Your task to perform on an android device: turn off notifications in google photos Image 0: 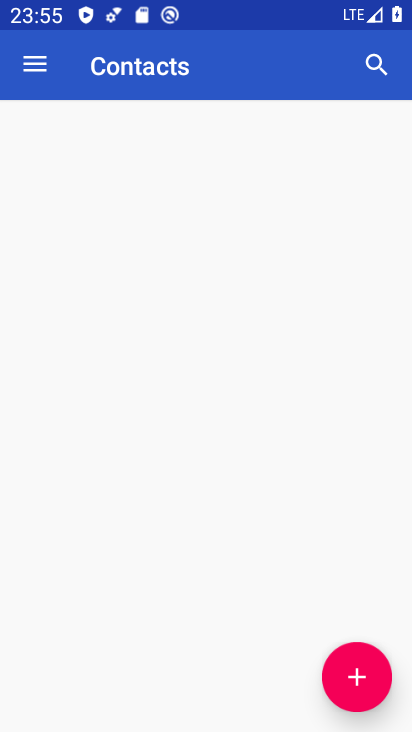
Step 0: press home button
Your task to perform on an android device: turn off notifications in google photos Image 1: 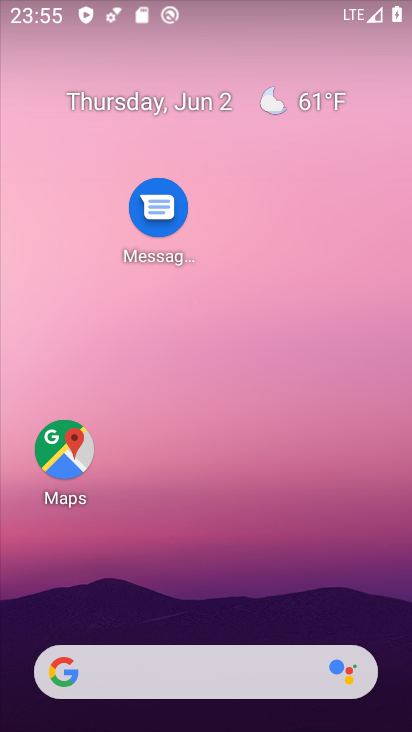
Step 1: drag from (151, 614) to (344, 80)
Your task to perform on an android device: turn off notifications in google photos Image 2: 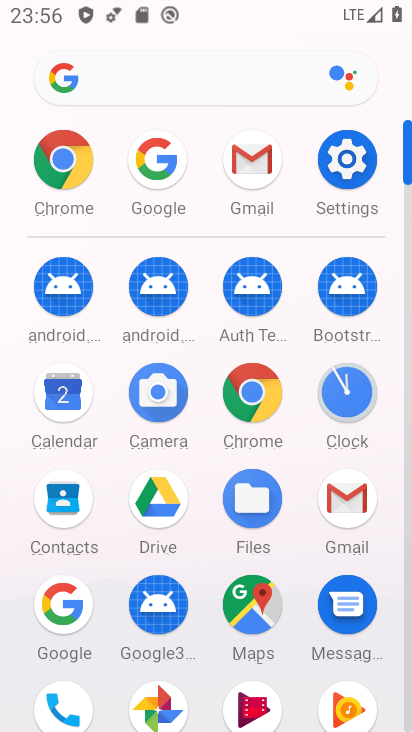
Step 2: click (147, 698)
Your task to perform on an android device: turn off notifications in google photos Image 3: 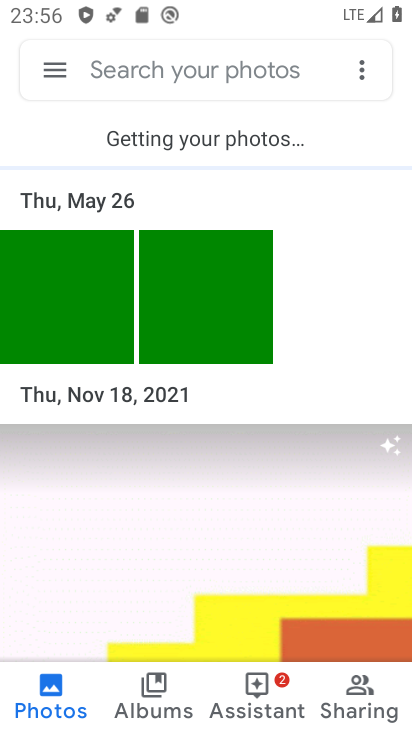
Step 3: click (61, 69)
Your task to perform on an android device: turn off notifications in google photos Image 4: 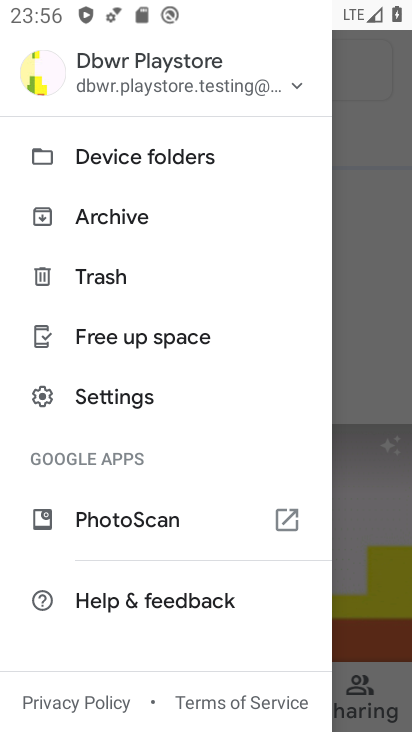
Step 4: click (112, 397)
Your task to perform on an android device: turn off notifications in google photos Image 5: 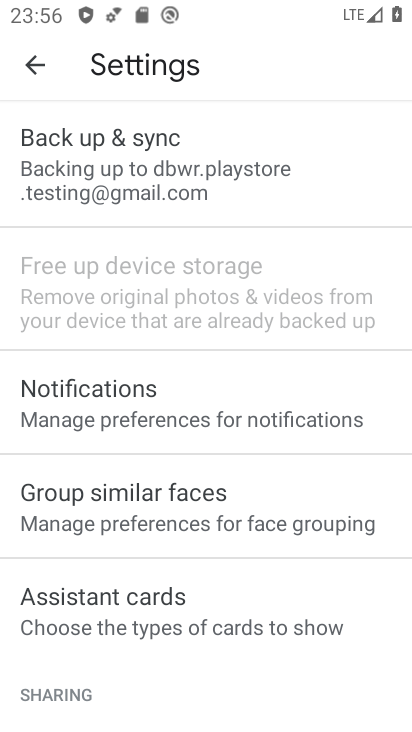
Step 5: click (169, 435)
Your task to perform on an android device: turn off notifications in google photos Image 6: 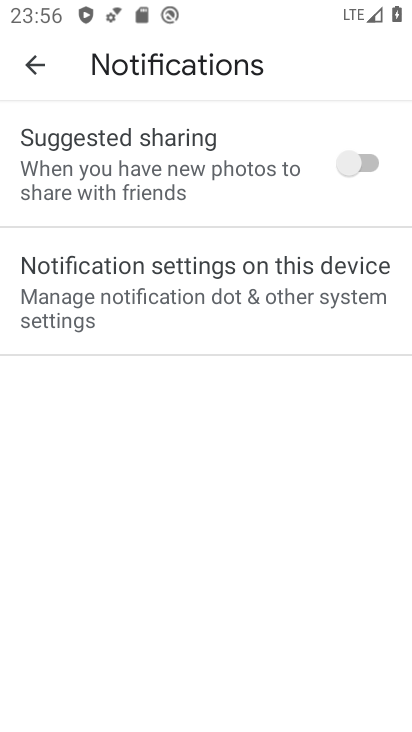
Step 6: click (341, 267)
Your task to perform on an android device: turn off notifications in google photos Image 7: 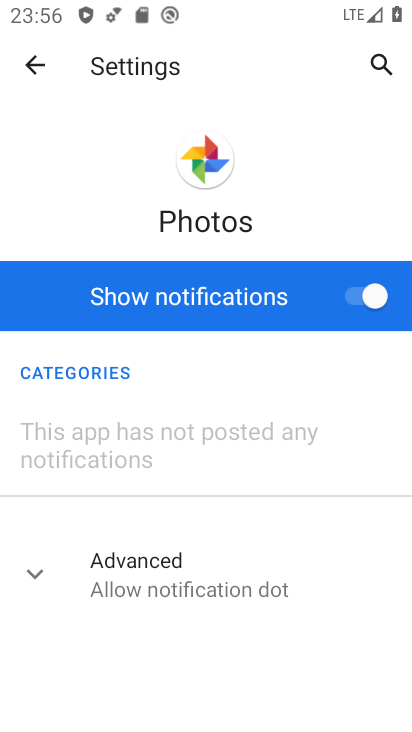
Step 7: click (370, 303)
Your task to perform on an android device: turn off notifications in google photos Image 8: 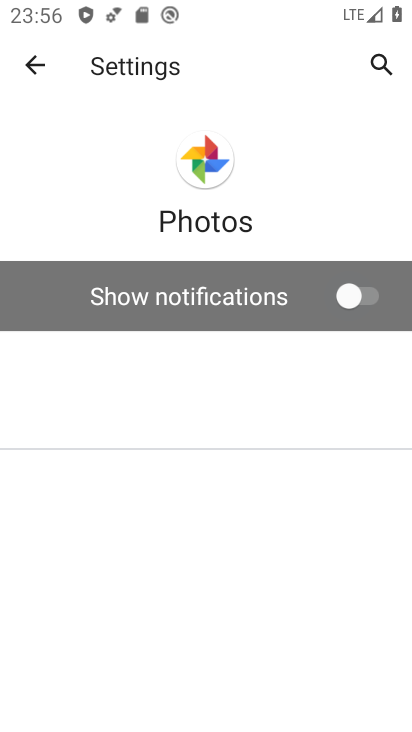
Step 8: task complete